Your task to perform on an android device: Search for pizza restaurants on Maps Image 0: 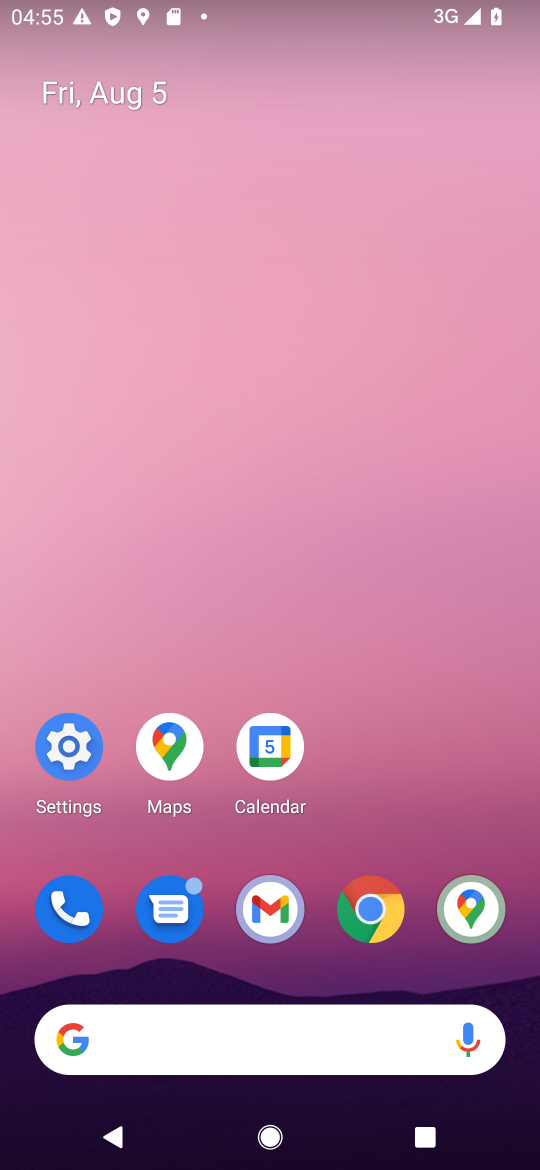
Step 0: click (170, 738)
Your task to perform on an android device: Search for pizza restaurants on Maps Image 1: 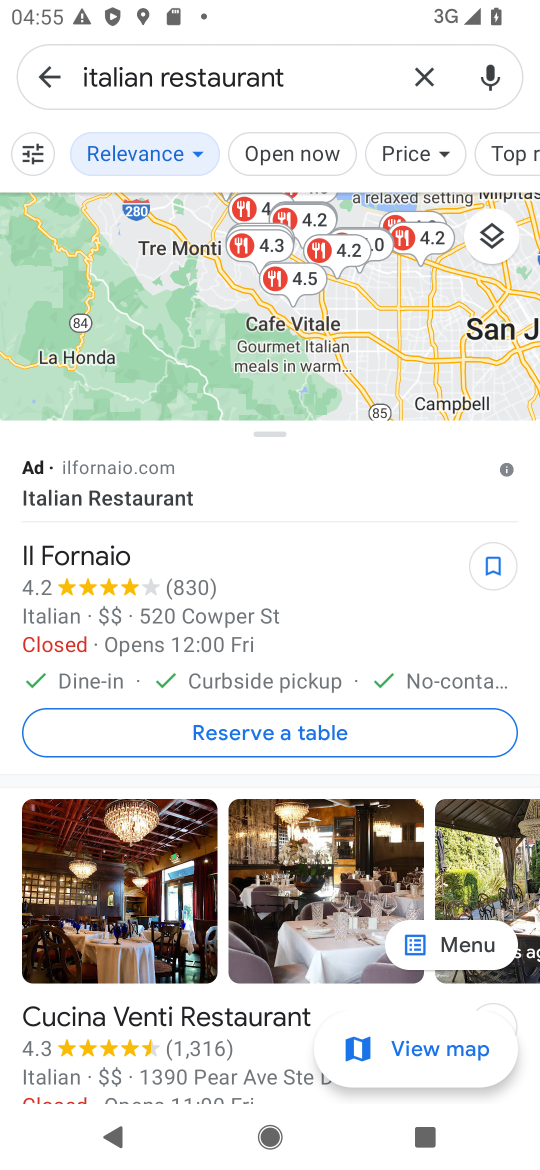
Step 1: click (425, 66)
Your task to perform on an android device: Search for pizza restaurants on Maps Image 2: 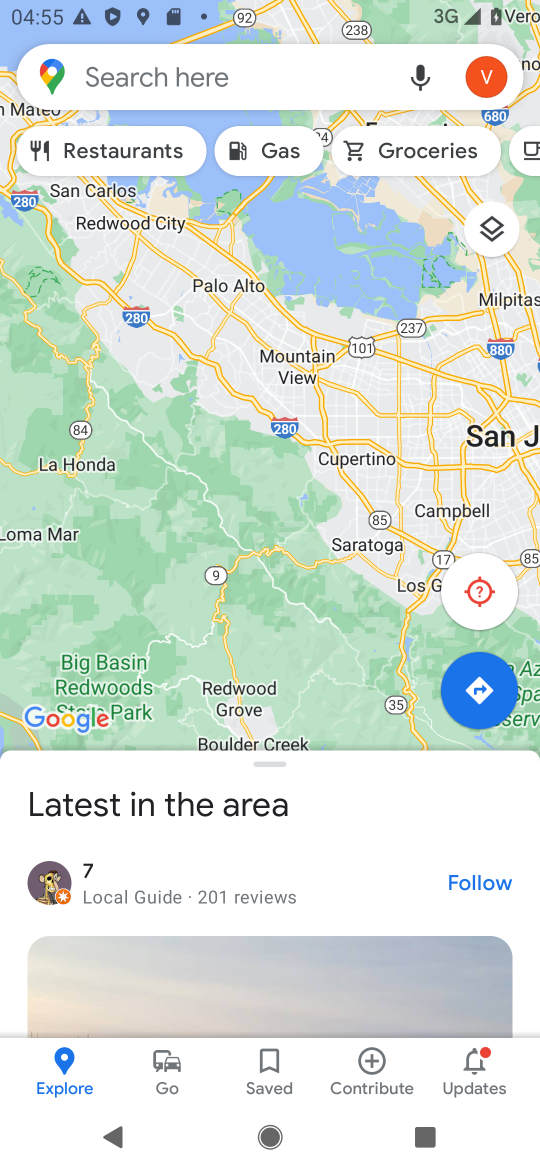
Step 2: click (255, 69)
Your task to perform on an android device: Search for pizza restaurants on Maps Image 3: 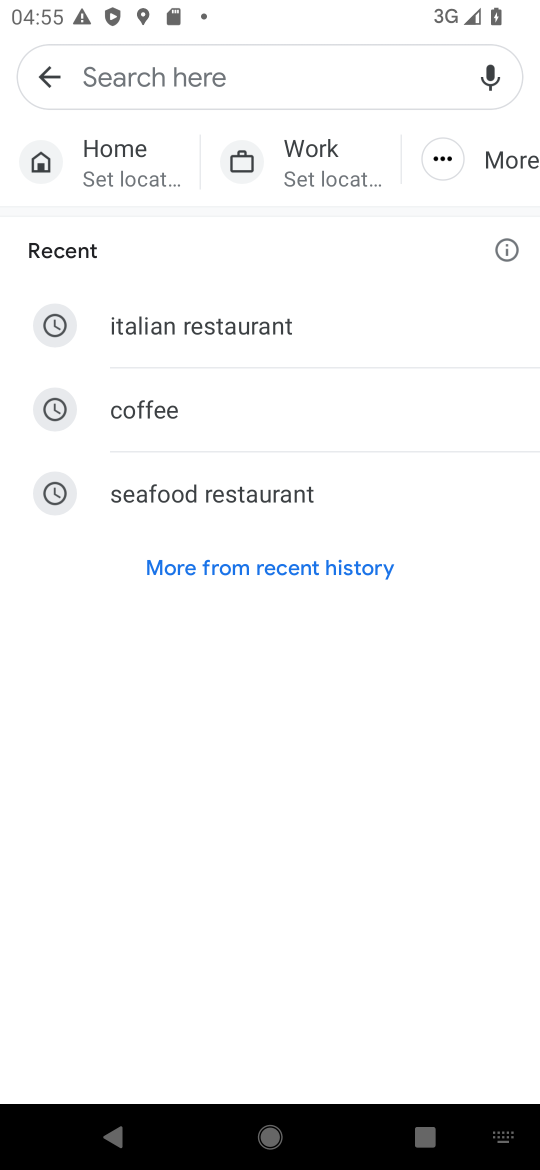
Step 3: type "pizza restaurants"
Your task to perform on an android device: Search for pizza restaurants on Maps Image 4: 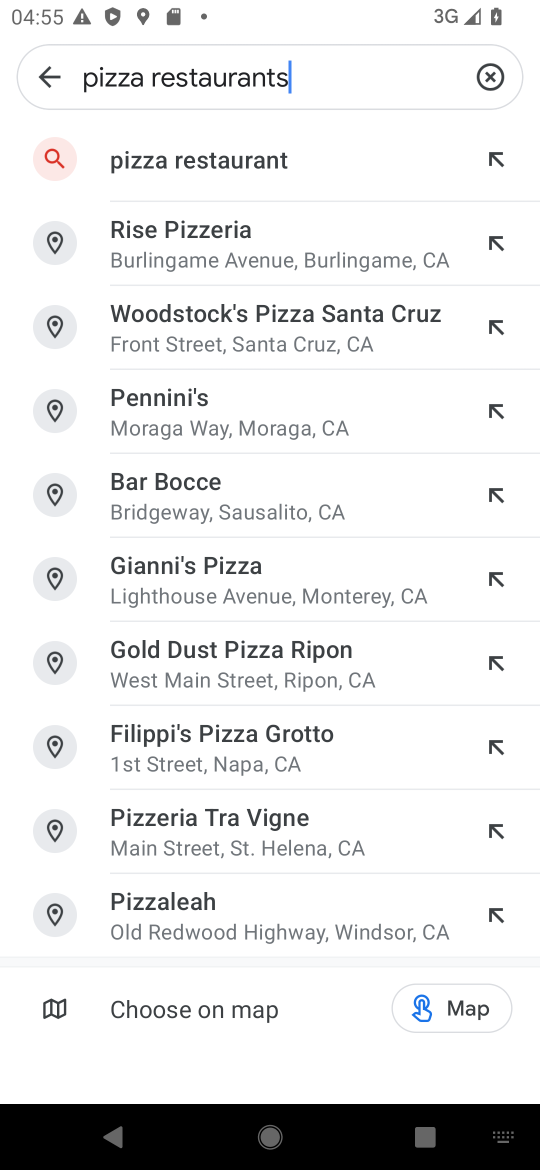
Step 4: click (224, 151)
Your task to perform on an android device: Search for pizza restaurants on Maps Image 5: 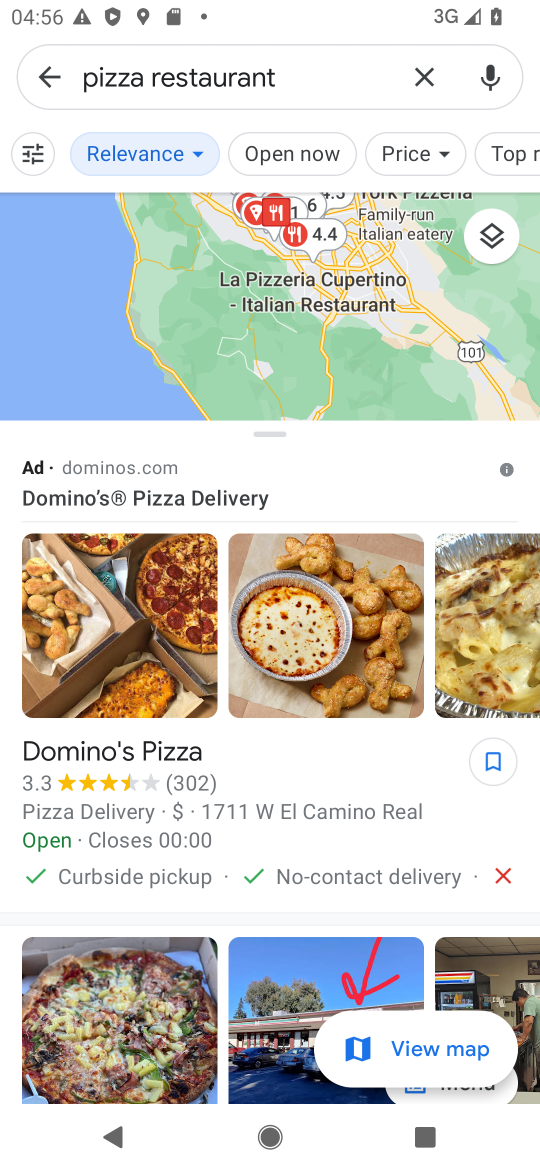
Step 5: task complete